Your task to perform on an android device: set the timer Image 0: 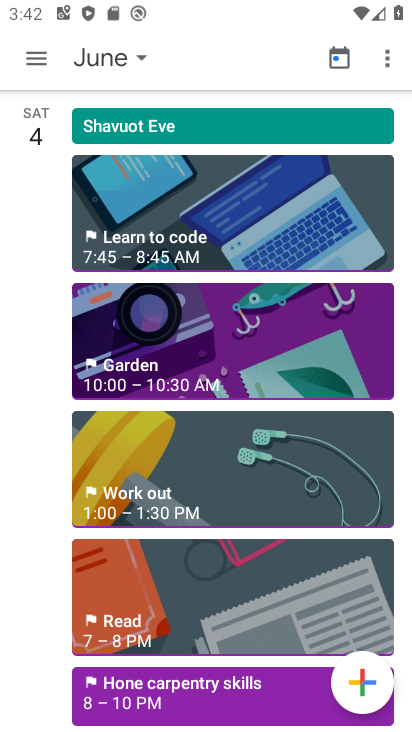
Step 0: press home button
Your task to perform on an android device: set the timer Image 1: 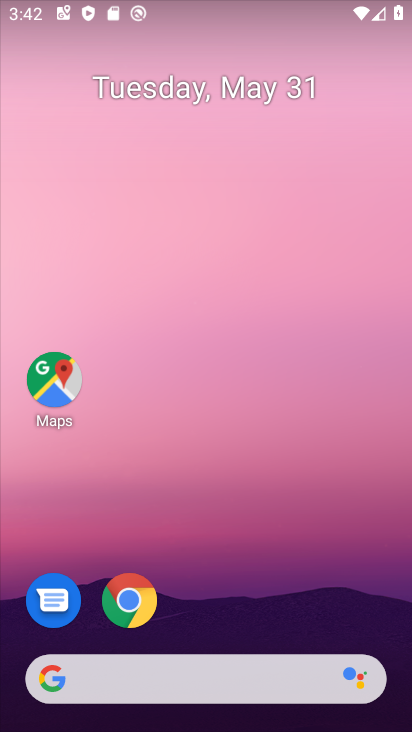
Step 1: drag from (224, 631) to (229, 176)
Your task to perform on an android device: set the timer Image 2: 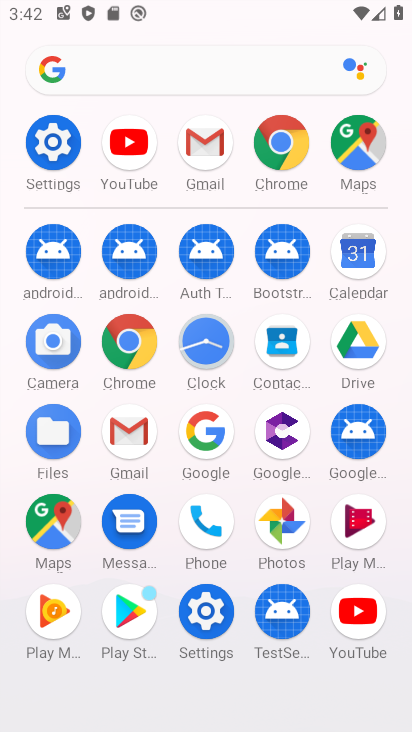
Step 2: click (203, 328)
Your task to perform on an android device: set the timer Image 3: 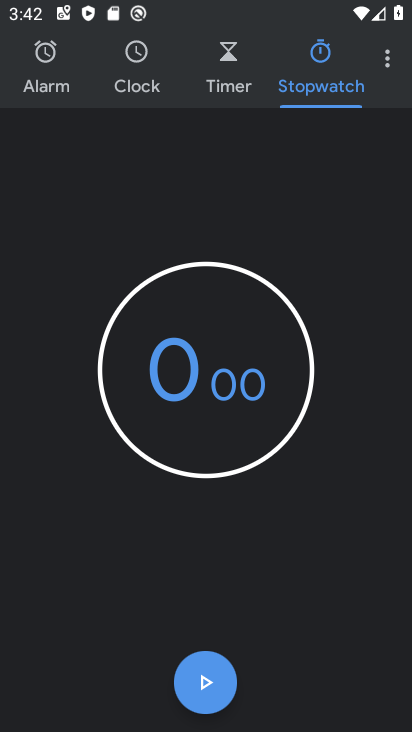
Step 3: click (227, 57)
Your task to perform on an android device: set the timer Image 4: 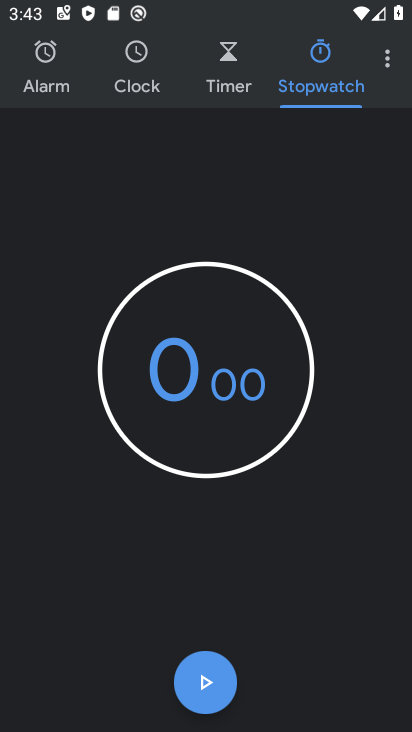
Step 4: click (234, 49)
Your task to perform on an android device: set the timer Image 5: 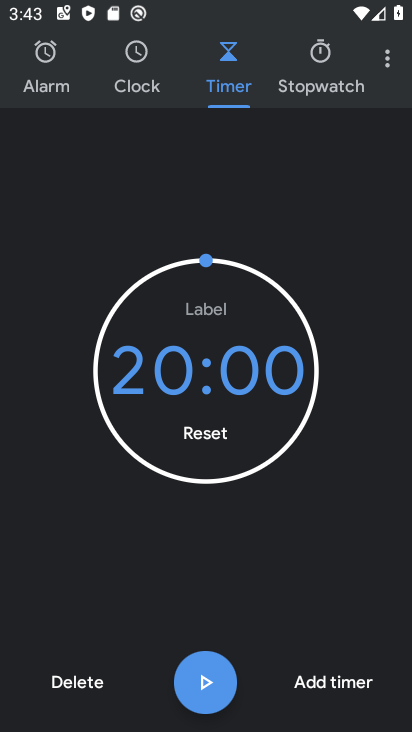
Step 5: click (212, 685)
Your task to perform on an android device: set the timer Image 6: 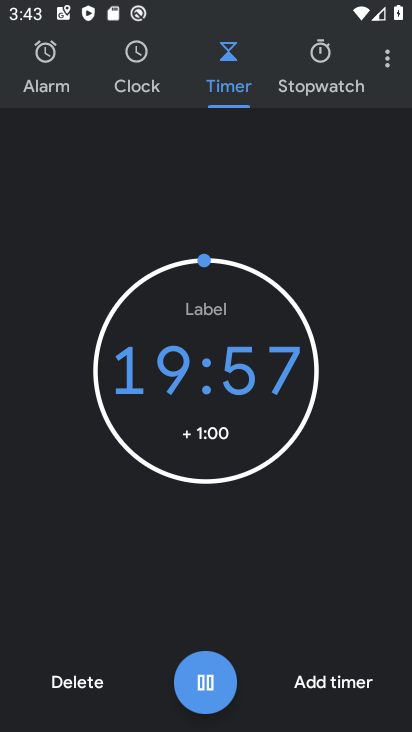
Step 6: task complete